Your task to perform on an android device: Open Chrome and go to settings Image 0: 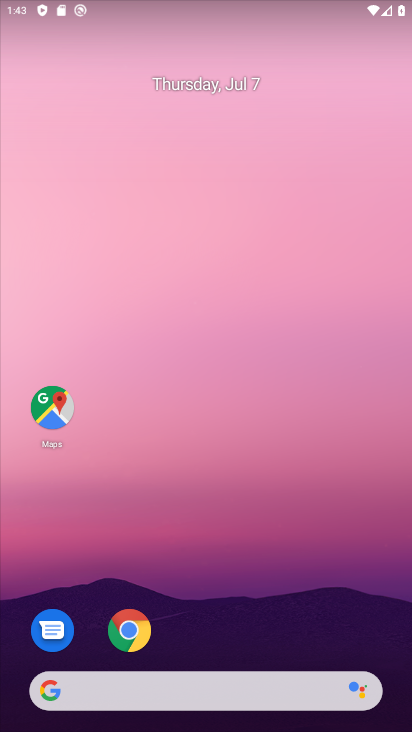
Step 0: drag from (233, 658) to (216, 0)
Your task to perform on an android device: Open Chrome and go to settings Image 1: 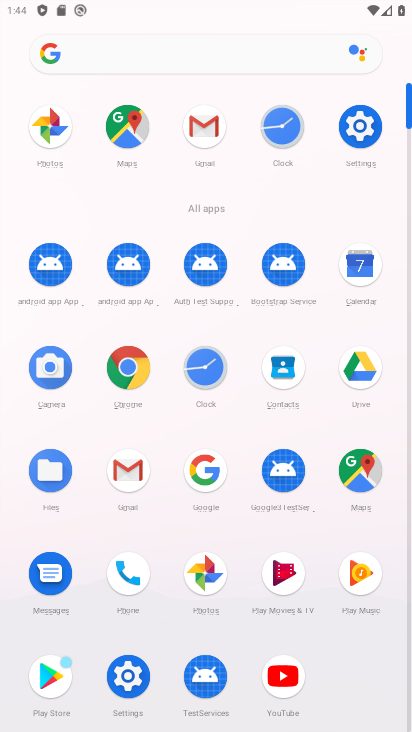
Step 1: click (118, 363)
Your task to perform on an android device: Open Chrome and go to settings Image 2: 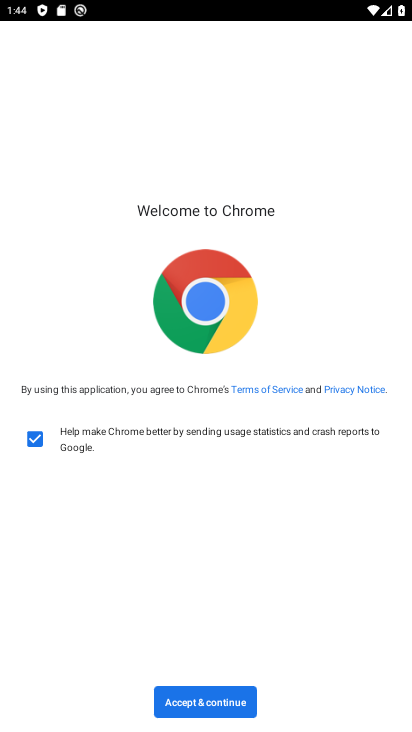
Step 2: click (229, 700)
Your task to perform on an android device: Open Chrome and go to settings Image 3: 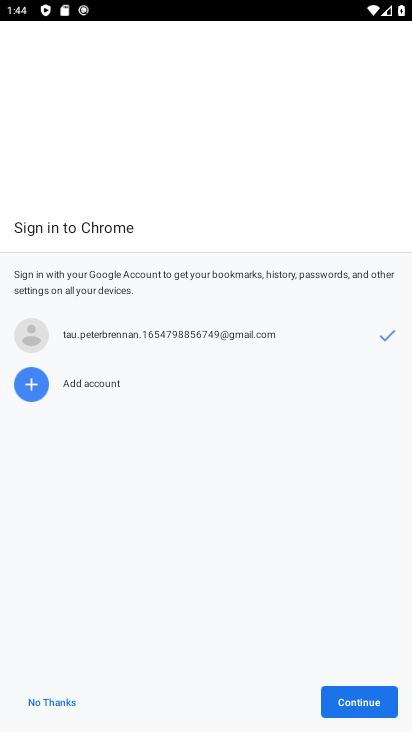
Step 3: click (358, 701)
Your task to perform on an android device: Open Chrome and go to settings Image 4: 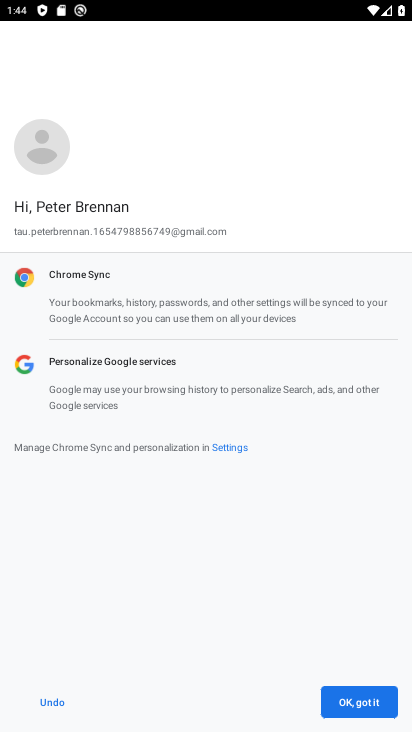
Step 4: click (385, 693)
Your task to perform on an android device: Open Chrome and go to settings Image 5: 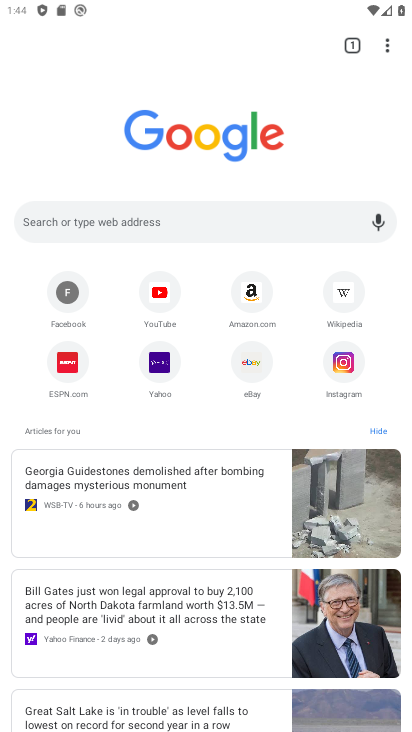
Step 5: click (393, 48)
Your task to perform on an android device: Open Chrome and go to settings Image 6: 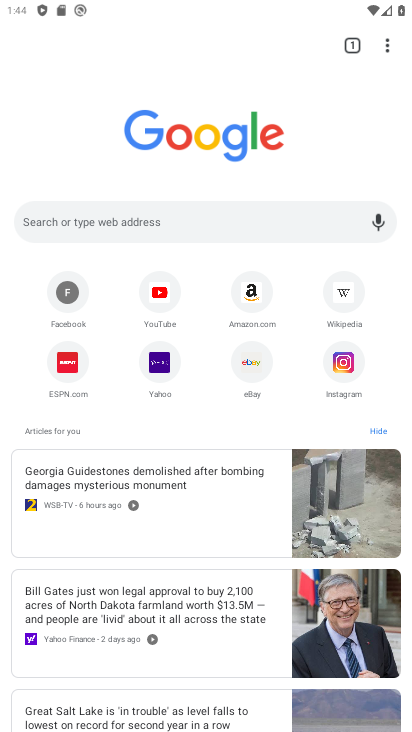
Step 6: click (382, 43)
Your task to perform on an android device: Open Chrome and go to settings Image 7: 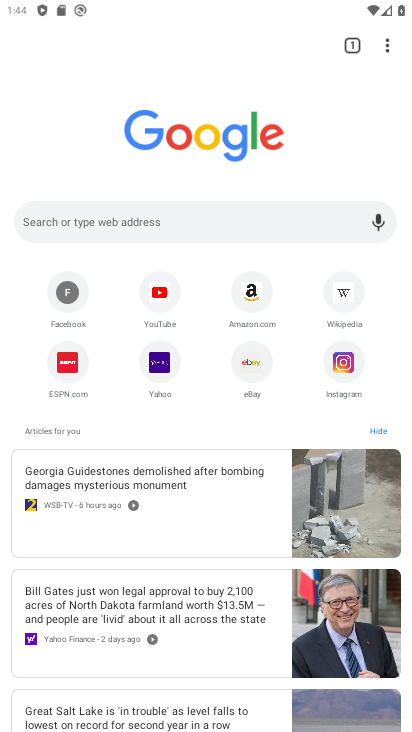
Step 7: task complete